Your task to perform on an android device: Go to settings Image 0: 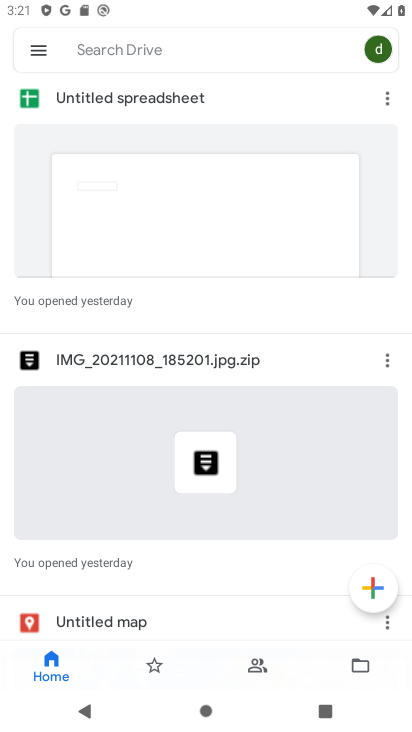
Step 0: press home button
Your task to perform on an android device: Go to settings Image 1: 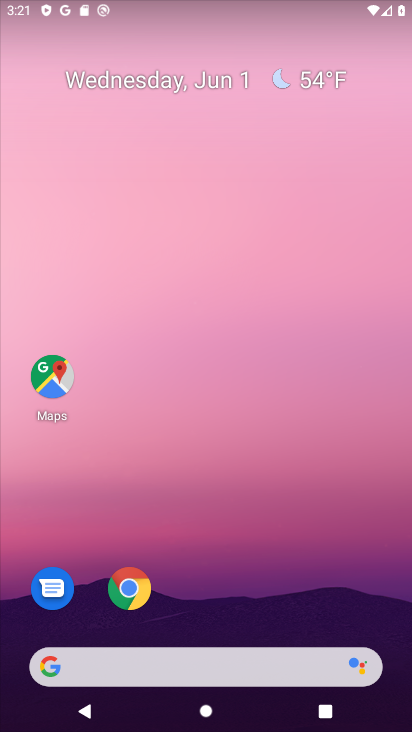
Step 1: drag from (224, 585) to (260, 183)
Your task to perform on an android device: Go to settings Image 2: 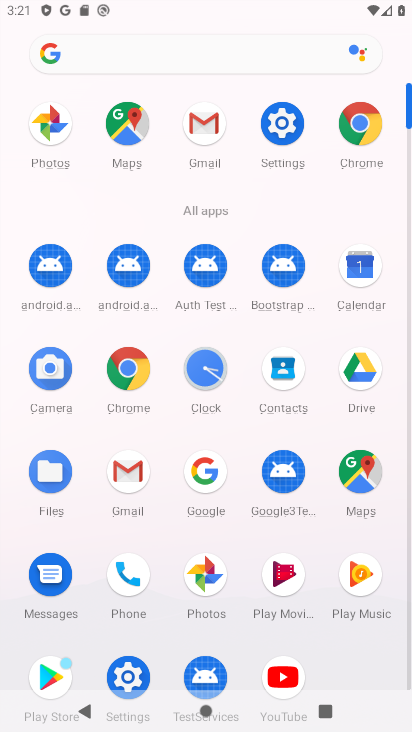
Step 2: click (305, 146)
Your task to perform on an android device: Go to settings Image 3: 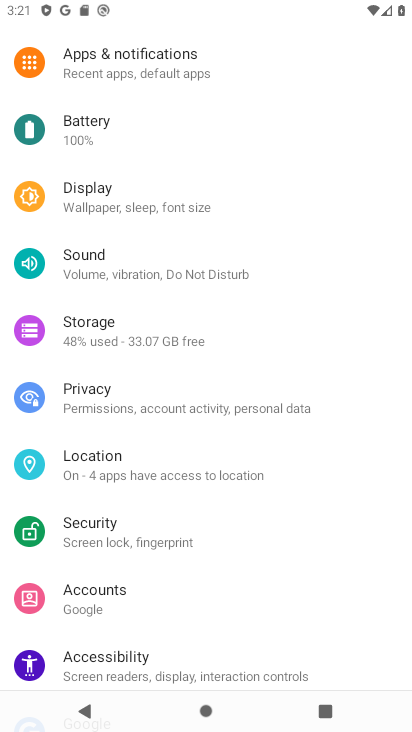
Step 3: task complete